Your task to perform on an android device: What's the weather? Image 0: 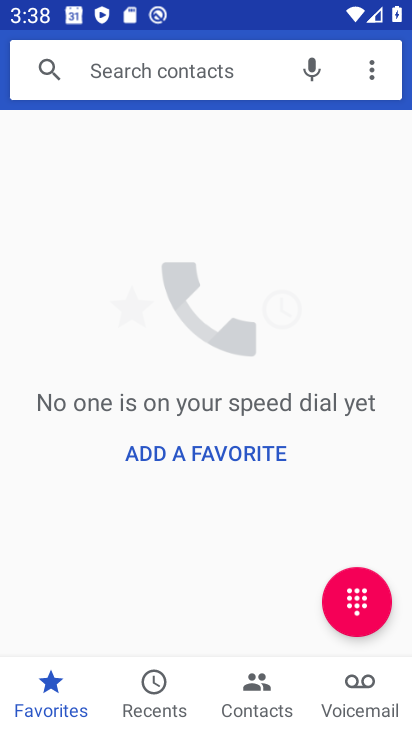
Step 0: press home button
Your task to perform on an android device: What's the weather? Image 1: 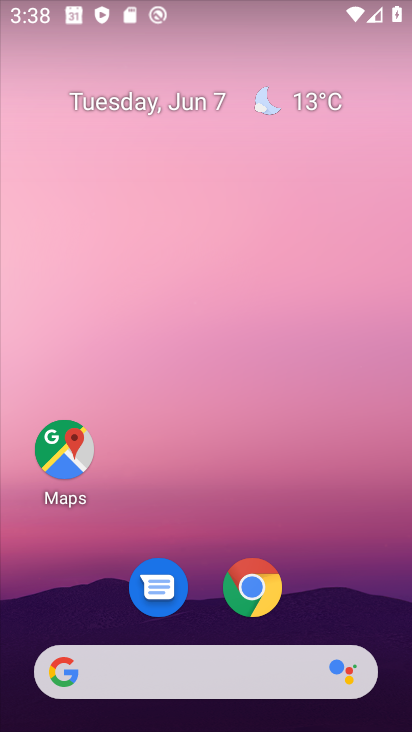
Step 1: drag from (267, 611) to (314, 119)
Your task to perform on an android device: What's the weather? Image 2: 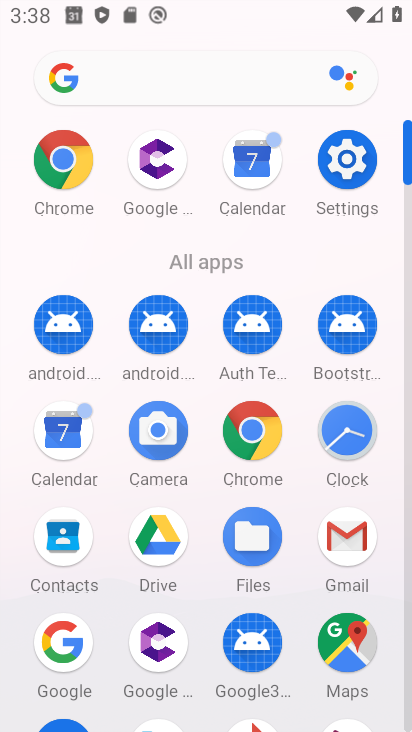
Step 2: click (65, 651)
Your task to perform on an android device: What's the weather? Image 3: 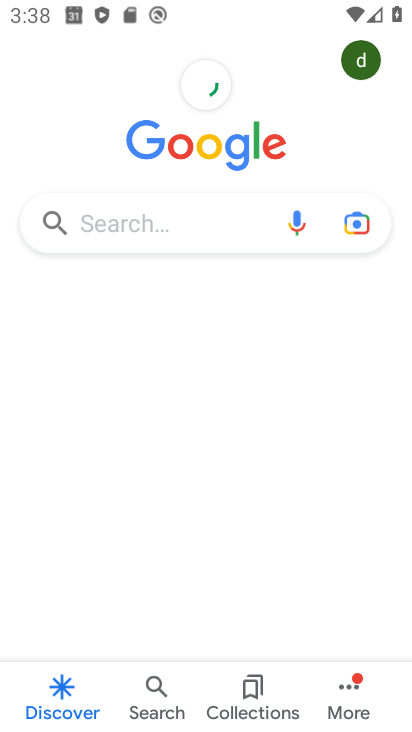
Step 3: click (196, 232)
Your task to perform on an android device: What's the weather? Image 4: 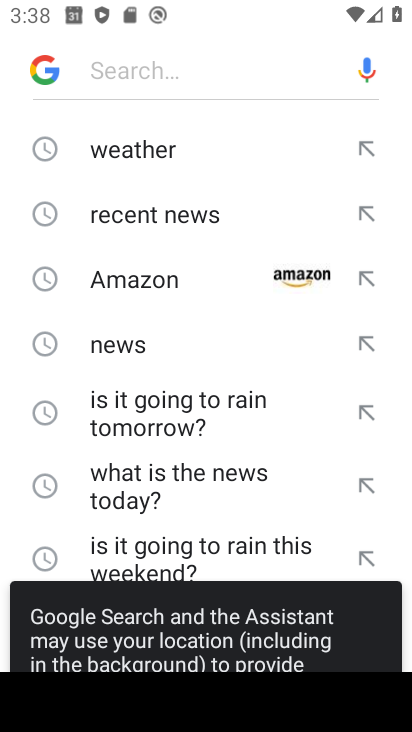
Step 4: click (211, 153)
Your task to perform on an android device: What's the weather? Image 5: 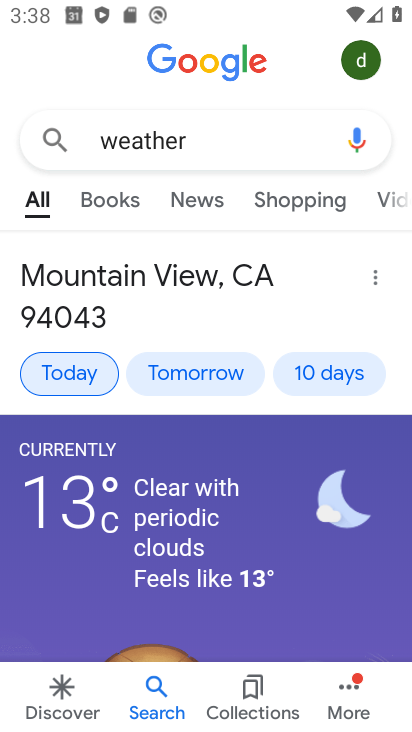
Step 5: task complete